Your task to perform on an android device: empty trash in the gmail app Image 0: 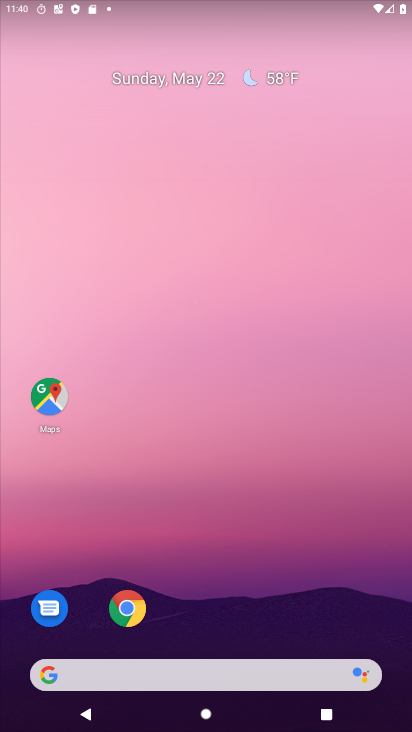
Step 0: drag from (242, 632) to (263, 90)
Your task to perform on an android device: empty trash in the gmail app Image 1: 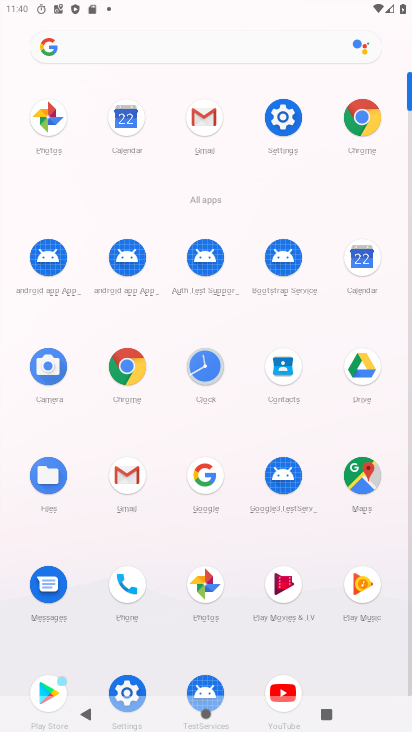
Step 1: click (207, 122)
Your task to perform on an android device: empty trash in the gmail app Image 2: 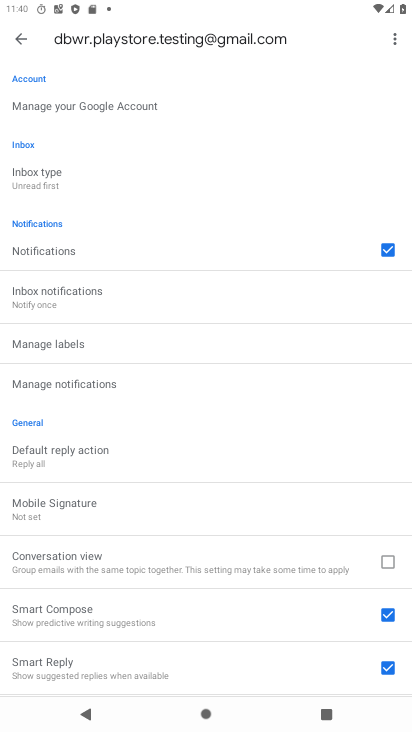
Step 2: click (10, 30)
Your task to perform on an android device: empty trash in the gmail app Image 3: 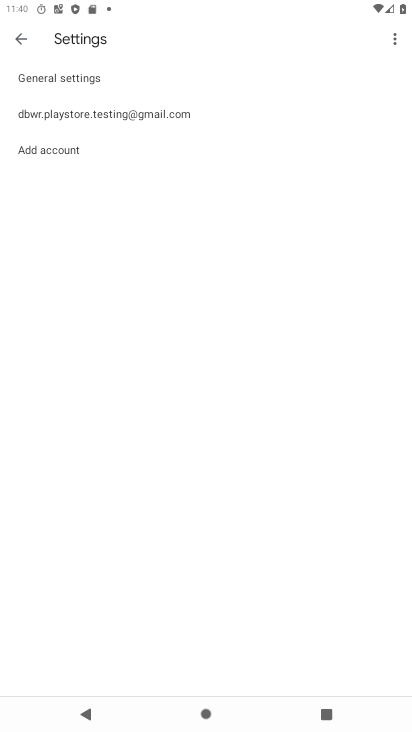
Step 3: click (10, 30)
Your task to perform on an android device: empty trash in the gmail app Image 4: 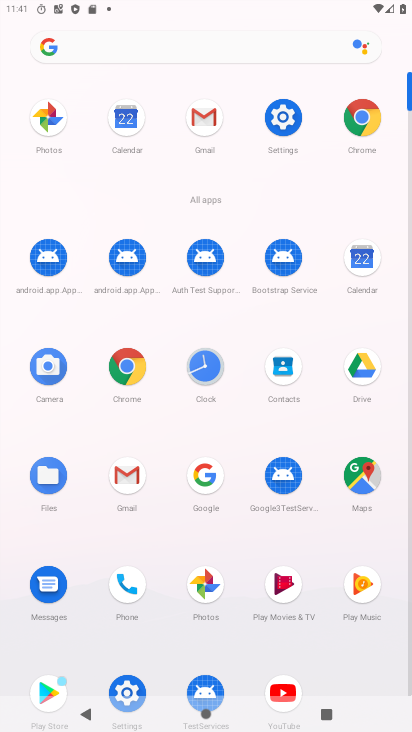
Step 4: click (203, 129)
Your task to perform on an android device: empty trash in the gmail app Image 5: 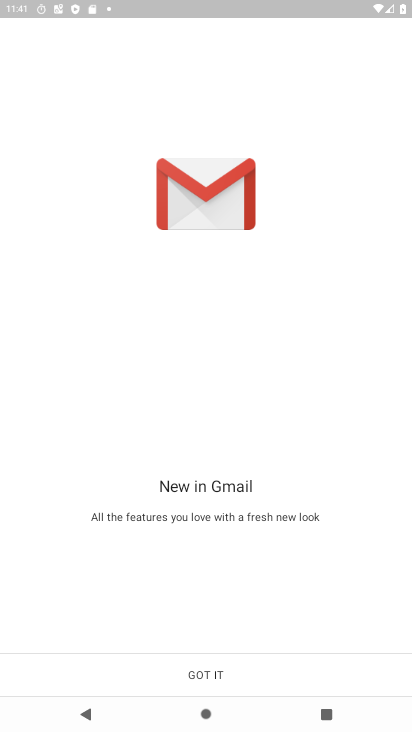
Step 5: click (206, 669)
Your task to perform on an android device: empty trash in the gmail app Image 6: 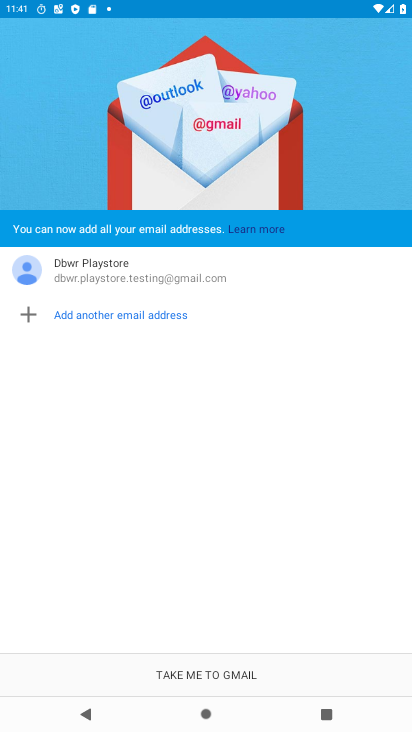
Step 6: click (206, 669)
Your task to perform on an android device: empty trash in the gmail app Image 7: 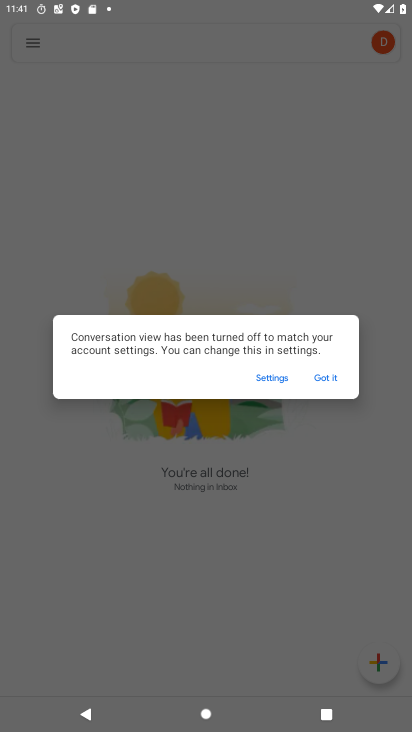
Step 7: click (330, 381)
Your task to perform on an android device: empty trash in the gmail app Image 8: 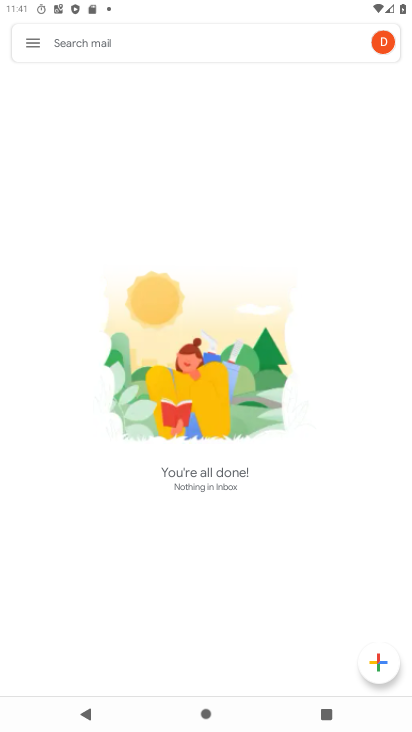
Step 8: click (28, 42)
Your task to perform on an android device: empty trash in the gmail app Image 9: 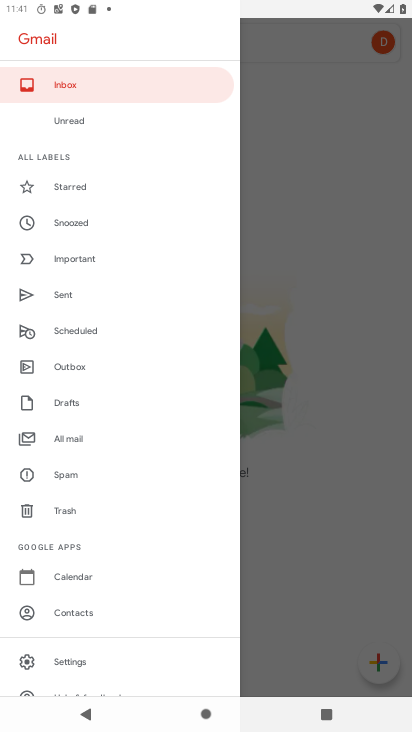
Step 9: click (66, 520)
Your task to perform on an android device: empty trash in the gmail app Image 10: 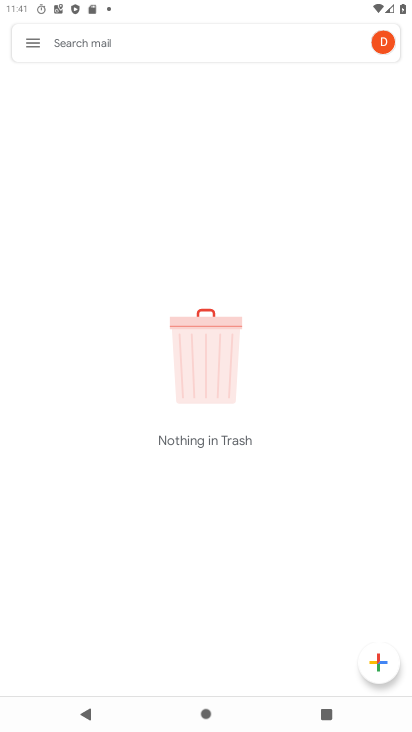
Step 10: task complete